Your task to perform on an android device: snooze an email in the gmail app Image 0: 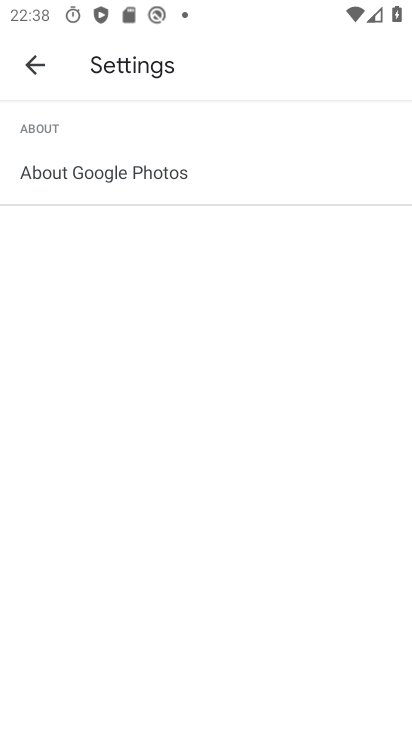
Step 0: press home button
Your task to perform on an android device: snooze an email in the gmail app Image 1: 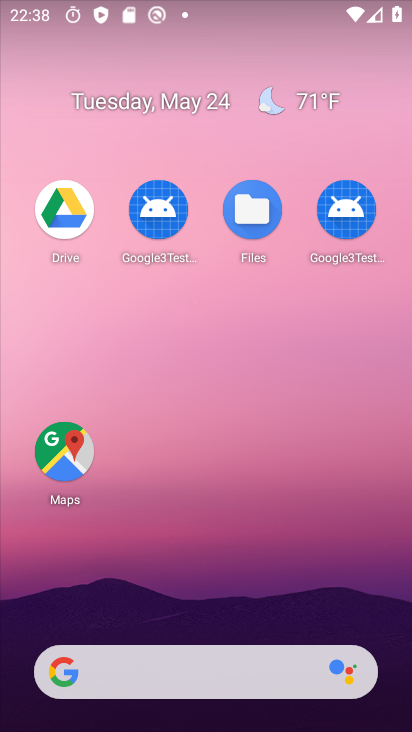
Step 1: drag from (202, 624) to (211, 133)
Your task to perform on an android device: snooze an email in the gmail app Image 2: 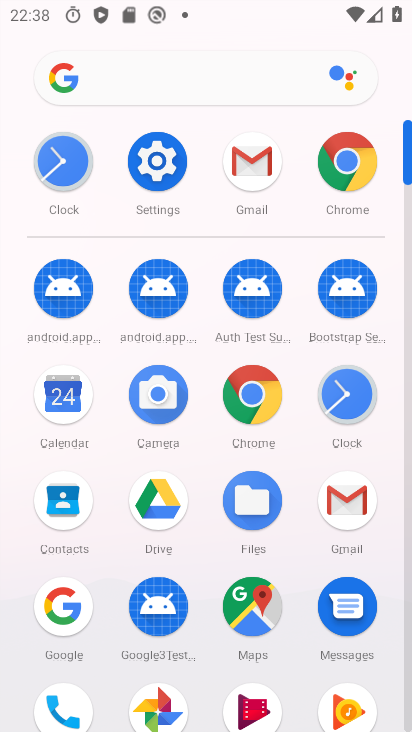
Step 2: click (340, 503)
Your task to perform on an android device: snooze an email in the gmail app Image 3: 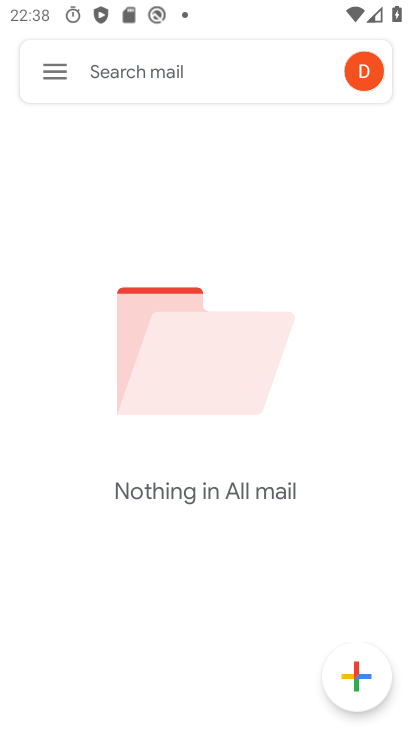
Step 3: click (54, 62)
Your task to perform on an android device: snooze an email in the gmail app Image 4: 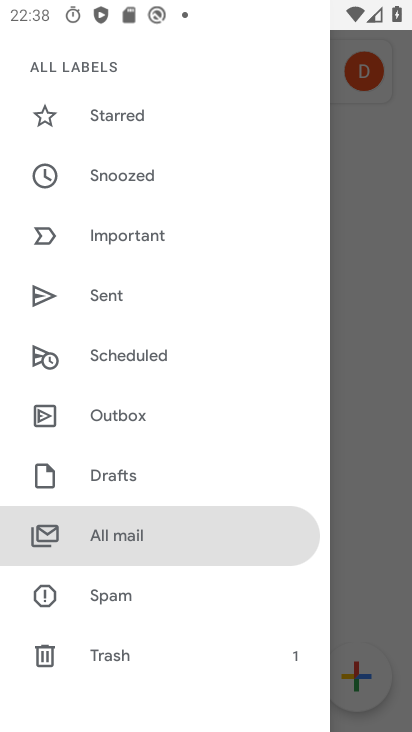
Step 4: click (104, 539)
Your task to perform on an android device: snooze an email in the gmail app Image 5: 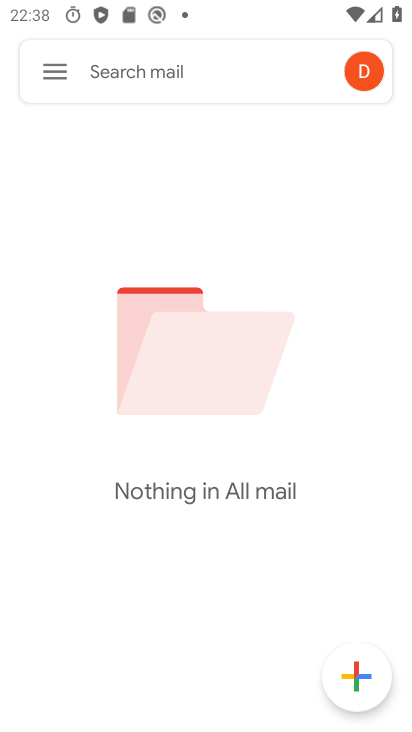
Step 5: task complete